Your task to perform on an android device: Show me recent news Image 0: 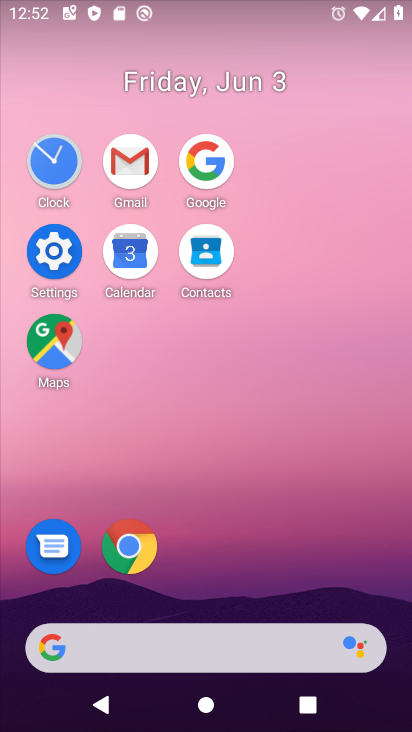
Step 0: click (217, 150)
Your task to perform on an android device: Show me recent news Image 1: 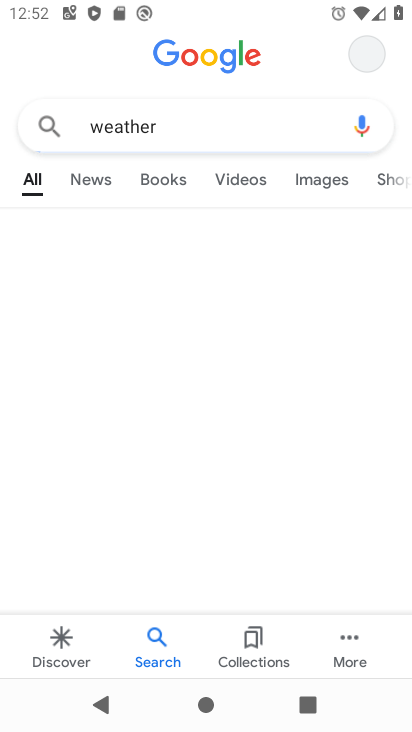
Step 1: click (162, 137)
Your task to perform on an android device: Show me recent news Image 2: 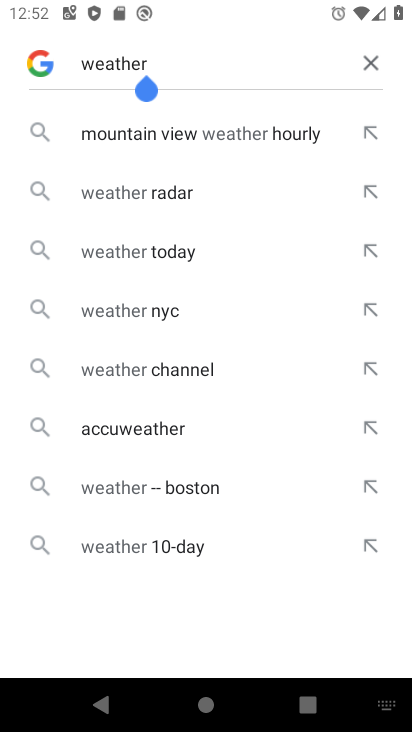
Step 2: click (374, 63)
Your task to perform on an android device: Show me recent news Image 3: 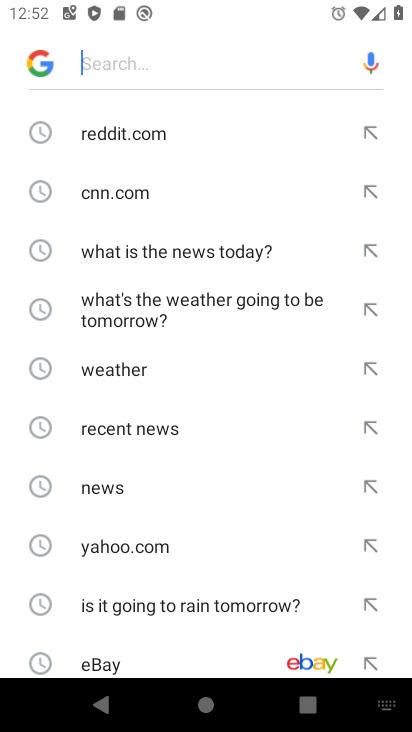
Step 3: click (134, 414)
Your task to perform on an android device: Show me recent news Image 4: 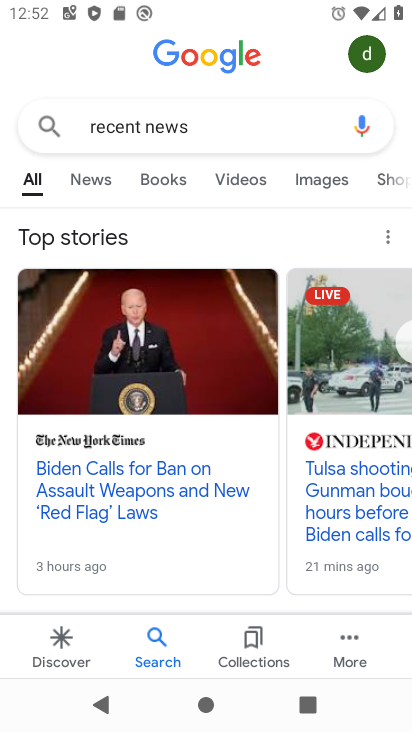
Step 4: task complete